Your task to perform on an android device: check the backup settings in the google photos Image 0: 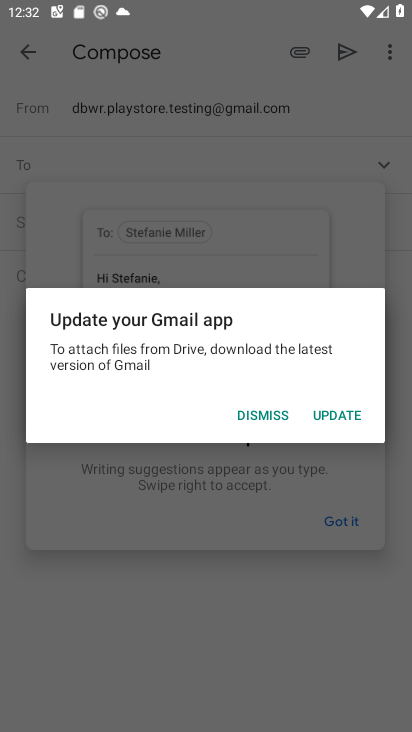
Step 0: press home button
Your task to perform on an android device: check the backup settings in the google photos Image 1: 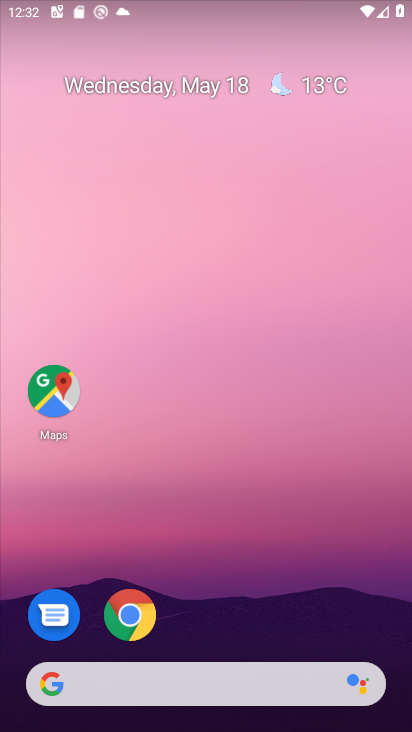
Step 1: drag from (393, 678) to (304, 208)
Your task to perform on an android device: check the backup settings in the google photos Image 2: 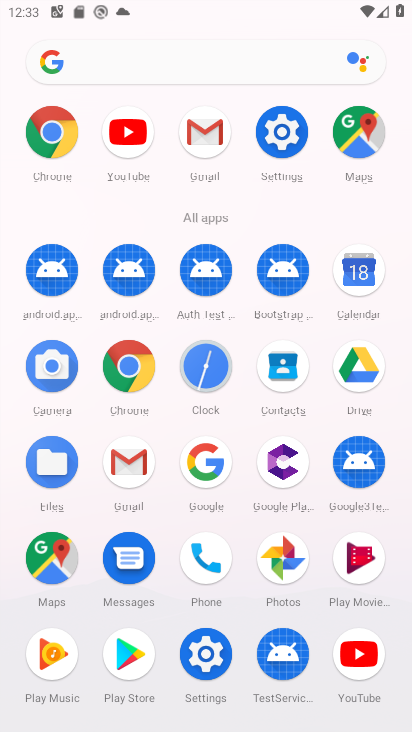
Step 2: click (275, 562)
Your task to perform on an android device: check the backup settings in the google photos Image 3: 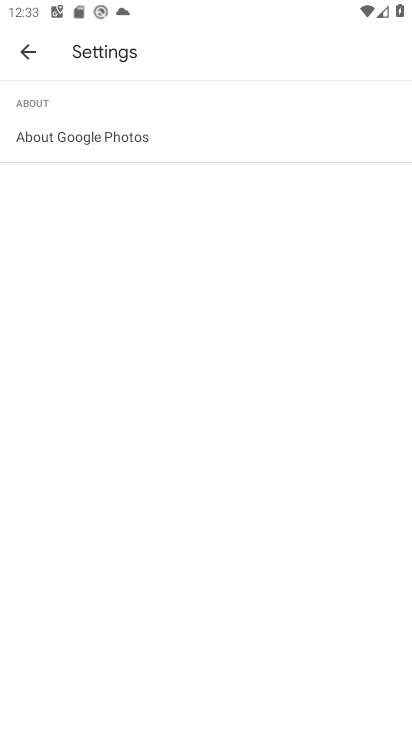
Step 3: click (22, 55)
Your task to perform on an android device: check the backup settings in the google photos Image 4: 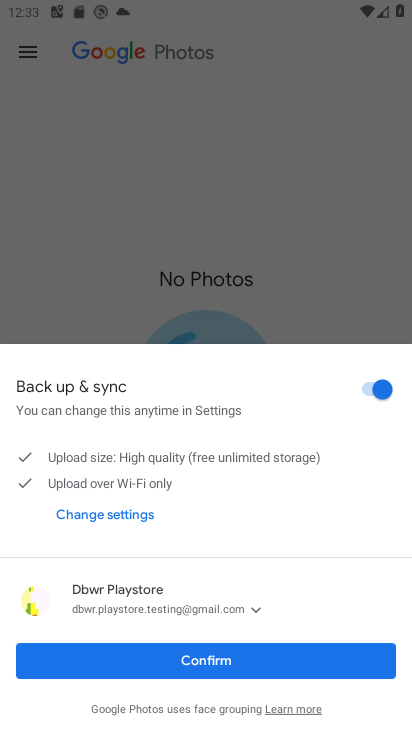
Step 4: click (97, 654)
Your task to perform on an android device: check the backup settings in the google photos Image 5: 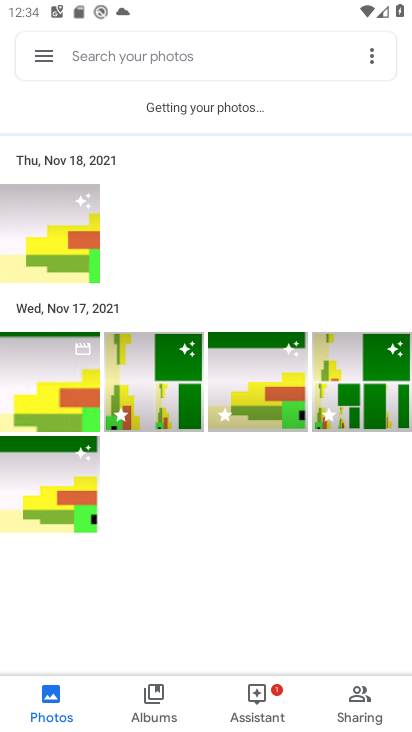
Step 5: click (47, 52)
Your task to perform on an android device: check the backup settings in the google photos Image 6: 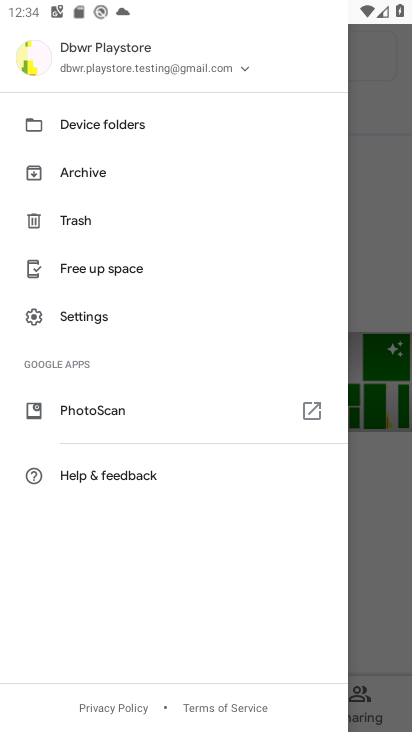
Step 6: click (73, 311)
Your task to perform on an android device: check the backup settings in the google photos Image 7: 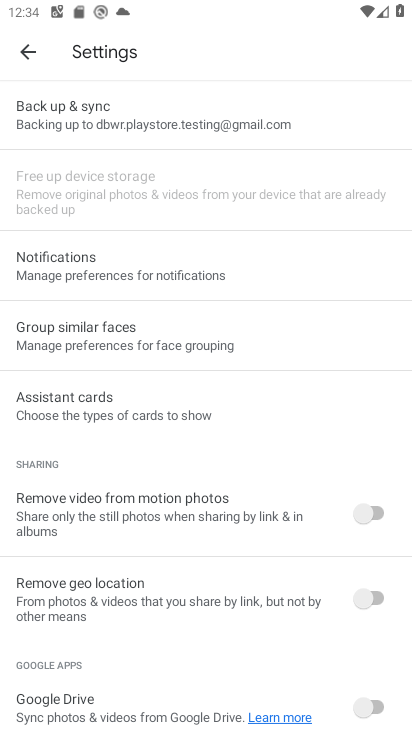
Step 7: click (96, 104)
Your task to perform on an android device: check the backup settings in the google photos Image 8: 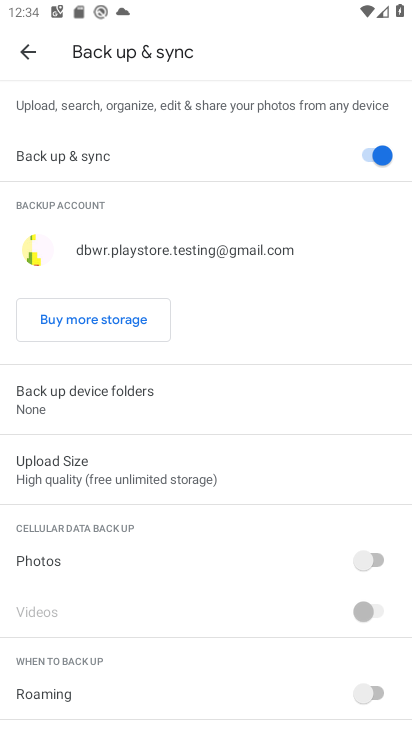
Step 8: task complete